Your task to perform on an android device: turn off javascript in the chrome app Image 0: 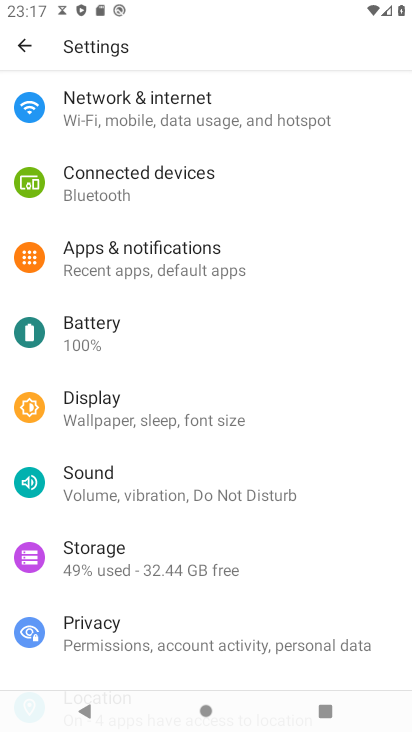
Step 0: press home button
Your task to perform on an android device: turn off javascript in the chrome app Image 1: 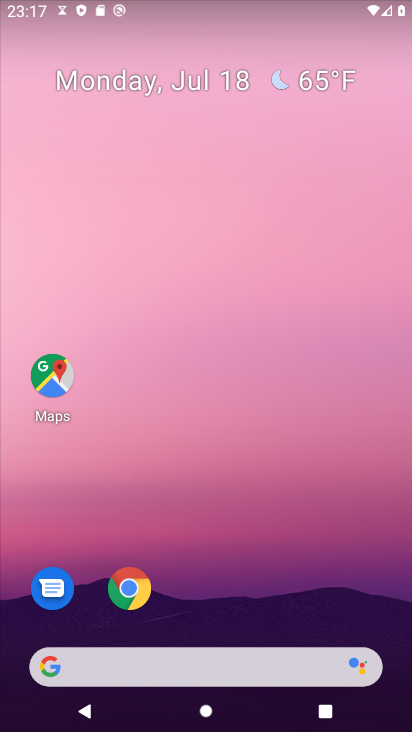
Step 1: click (129, 588)
Your task to perform on an android device: turn off javascript in the chrome app Image 2: 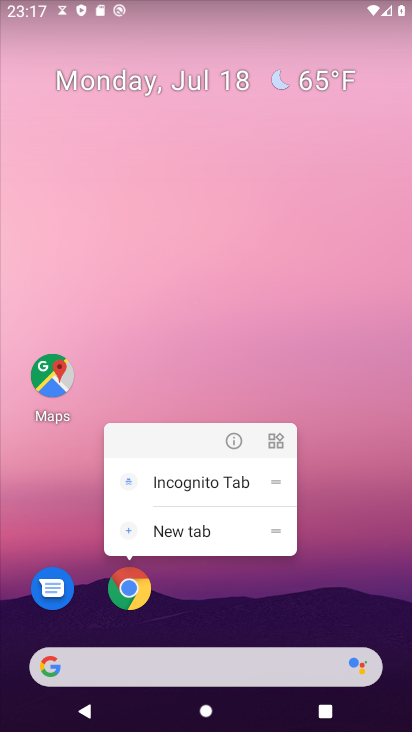
Step 2: click (130, 584)
Your task to perform on an android device: turn off javascript in the chrome app Image 3: 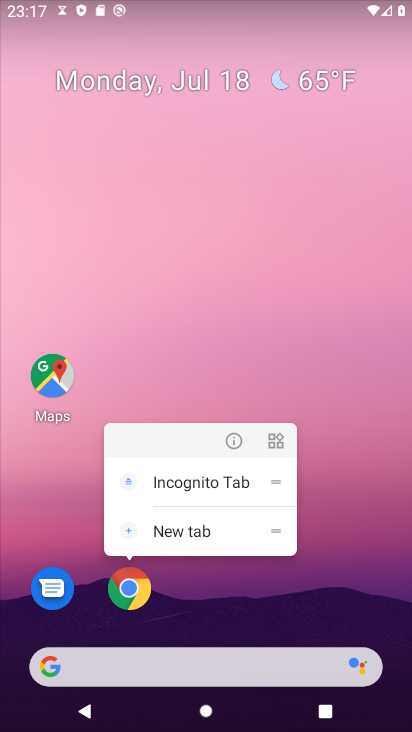
Step 3: click (130, 584)
Your task to perform on an android device: turn off javascript in the chrome app Image 4: 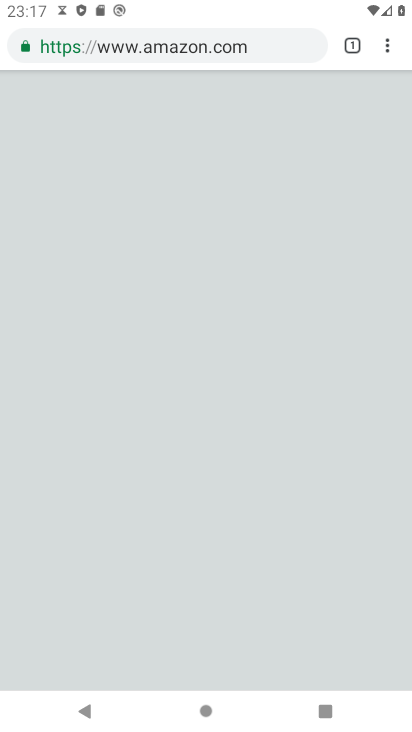
Step 4: drag from (388, 43) to (252, 550)
Your task to perform on an android device: turn off javascript in the chrome app Image 5: 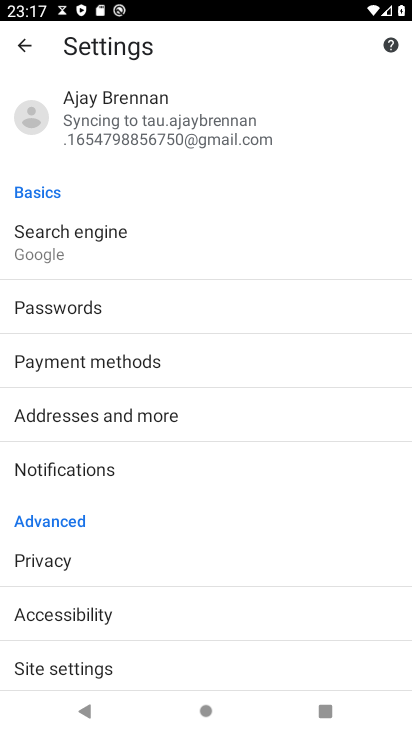
Step 5: drag from (223, 515) to (322, 221)
Your task to perform on an android device: turn off javascript in the chrome app Image 6: 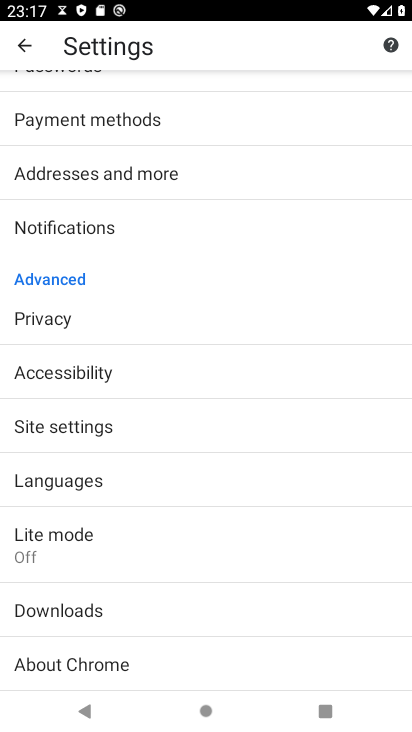
Step 6: click (87, 429)
Your task to perform on an android device: turn off javascript in the chrome app Image 7: 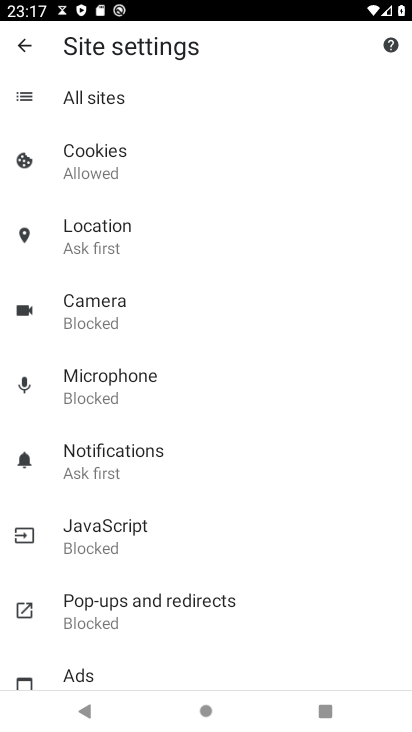
Step 7: click (105, 543)
Your task to perform on an android device: turn off javascript in the chrome app Image 8: 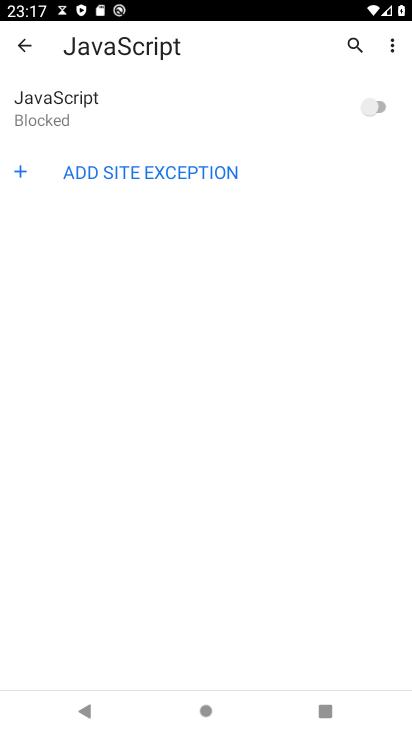
Step 8: click (390, 91)
Your task to perform on an android device: turn off javascript in the chrome app Image 9: 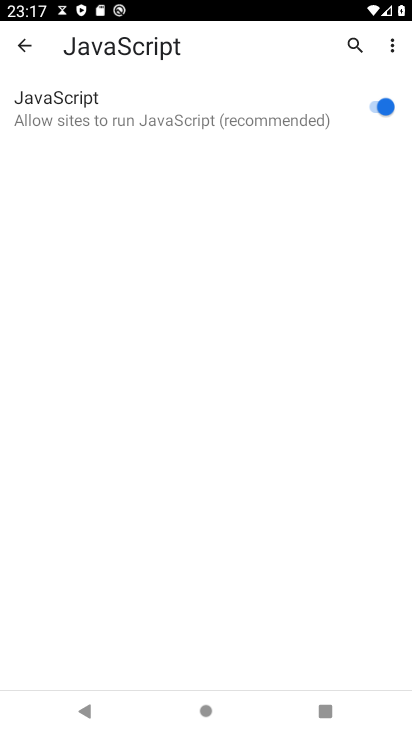
Step 9: click (384, 96)
Your task to perform on an android device: turn off javascript in the chrome app Image 10: 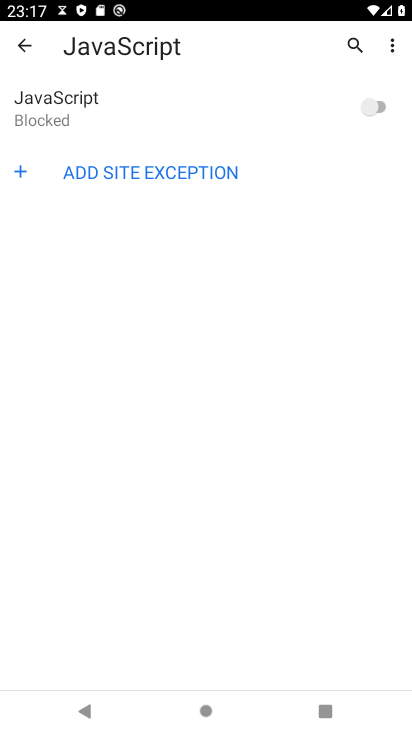
Step 10: task complete